Your task to perform on an android device: turn on the 24-hour format for clock Image 0: 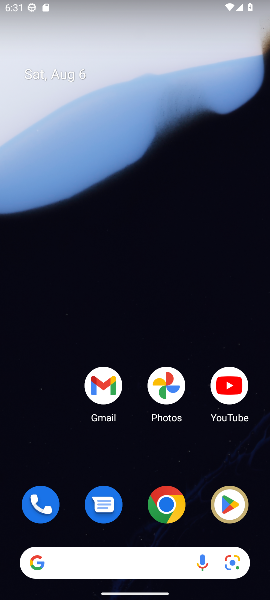
Step 0: drag from (147, 565) to (167, 130)
Your task to perform on an android device: turn on the 24-hour format for clock Image 1: 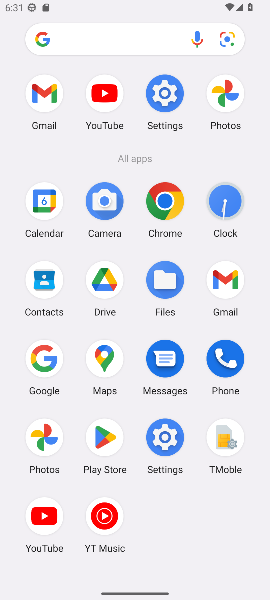
Step 1: click (225, 200)
Your task to perform on an android device: turn on the 24-hour format for clock Image 2: 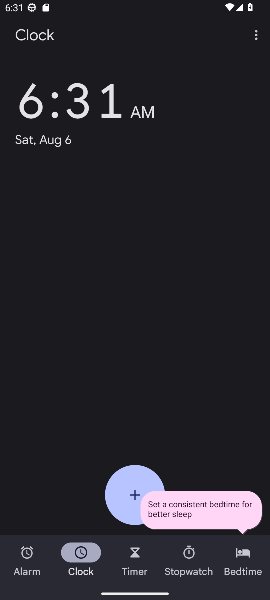
Step 2: click (255, 37)
Your task to perform on an android device: turn on the 24-hour format for clock Image 3: 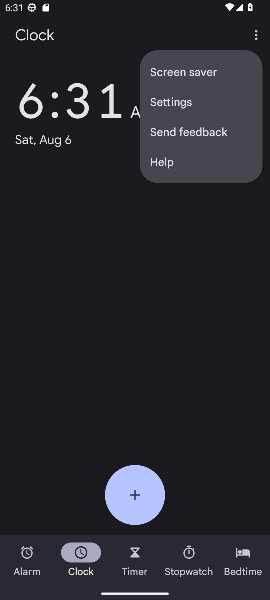
Step 3: click (189, 107)
Your task to perform on an android device: turn on the 24-hour format for clock Image 4: 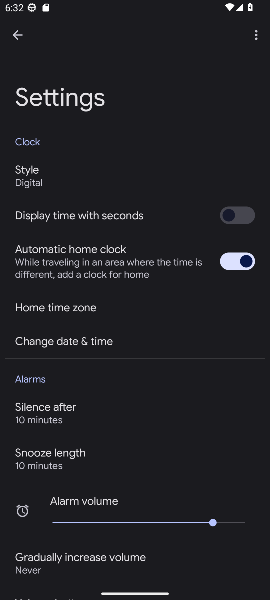
Step 4: click (97, 340)
Your task to perform on an android device: turn on the 24-hour format for clock Image 5: 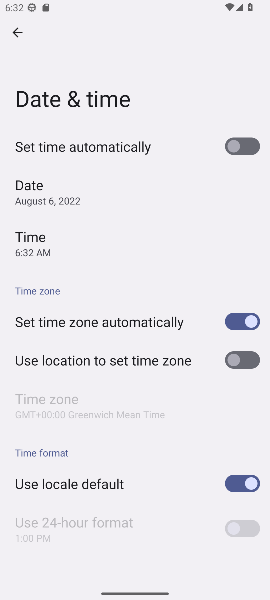
Step 5: drag from (119, 435) to (133, 260)
Your task to perform on an android device: turn on the 24-hour format for clock Image 6: 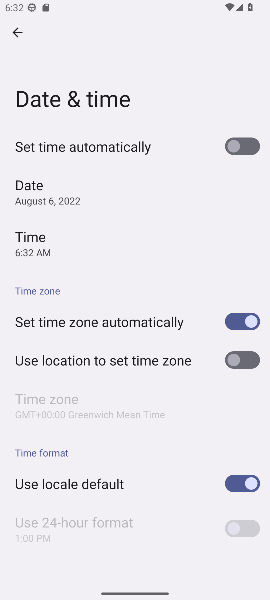
Step 6: click (236, 484)
Your task to perform on an android device: turn on the 24-hour format for clock Image 7: 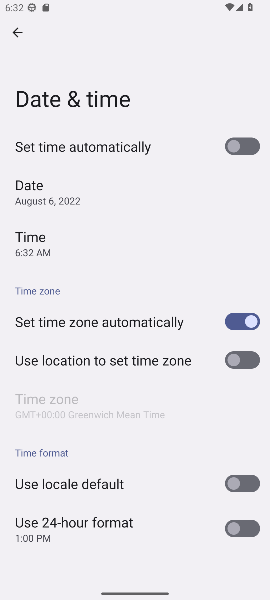
Step 7: click (239, 528)
Your task to perform on an android device: turn on the 24-hour format for clock Image 8: 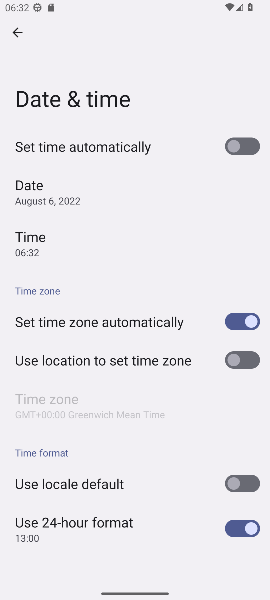
Step 8: task complete